Your task to perform on an android device: turn on data saver in the chrome app Image 0: 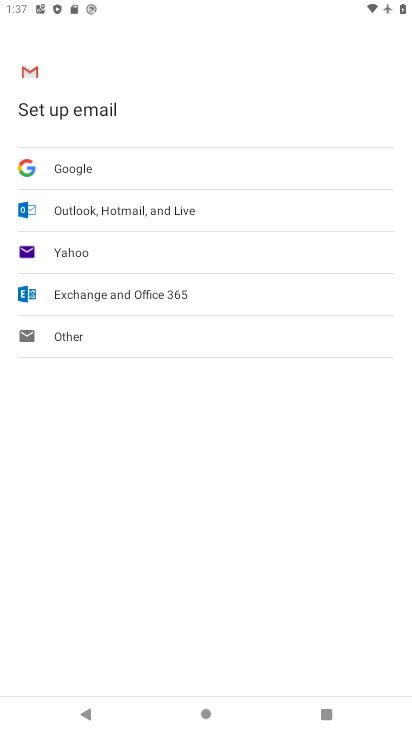
Step 0: press home button
Your task to perform on an android device: turn on data saver in the chrome app Image 1: 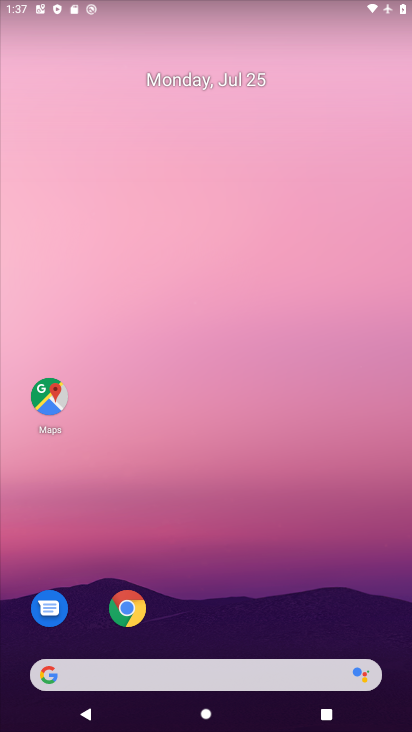
Step 1: drag from (305, 648) to (316, 185)
Your task to perform on an android device: turn on data saver in the chrome app Image 2: 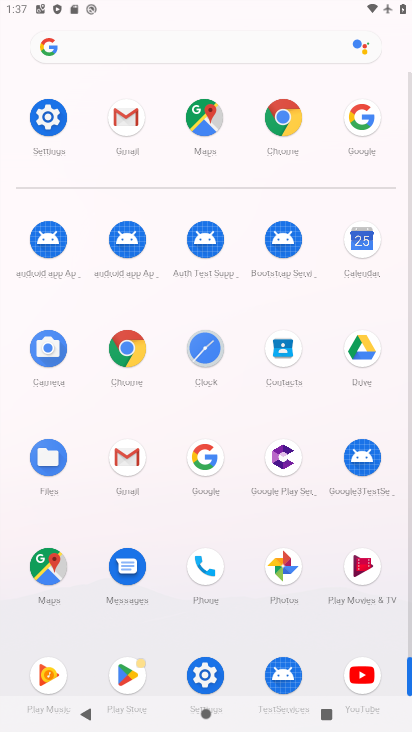
Step 2: click (118, 362)
Your task to perform on an android device: turn on data saver in the chrome app Image 3: 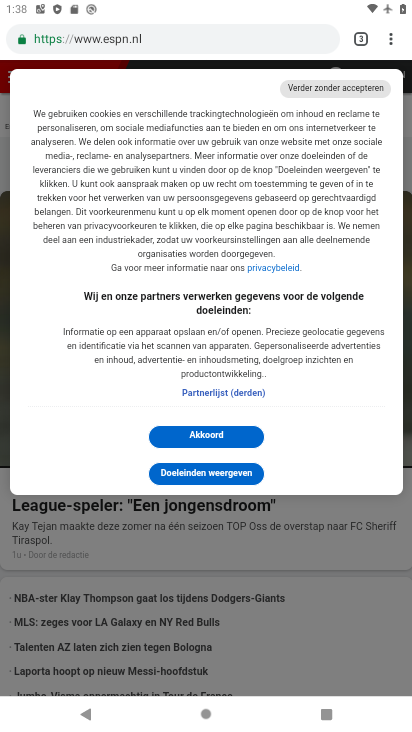
Step 3: click (396, 41)
Your task to perform on an android device: turn on data saver in the chrome app Image 4: 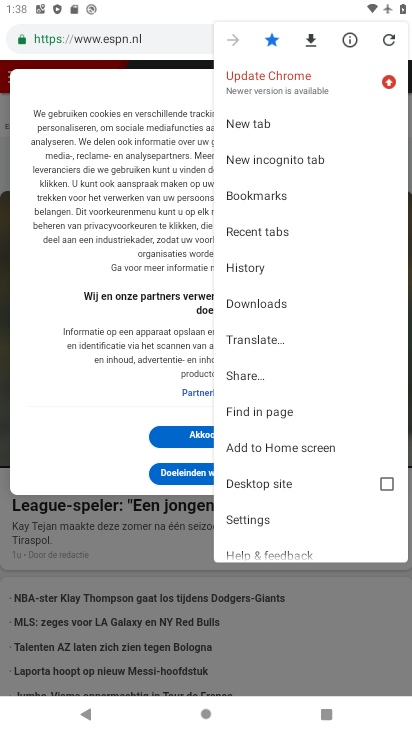
Step 4: click (251, 523)
Your task to perform on an android device: turn on data saver in the chrome app Image 5: 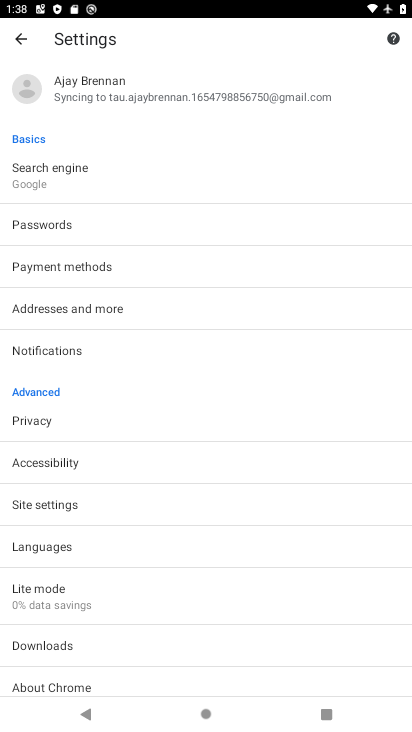
Step 5: click (85, 596)
Your task to perform on an android device: turn on data saver in the chrome app Image 6: 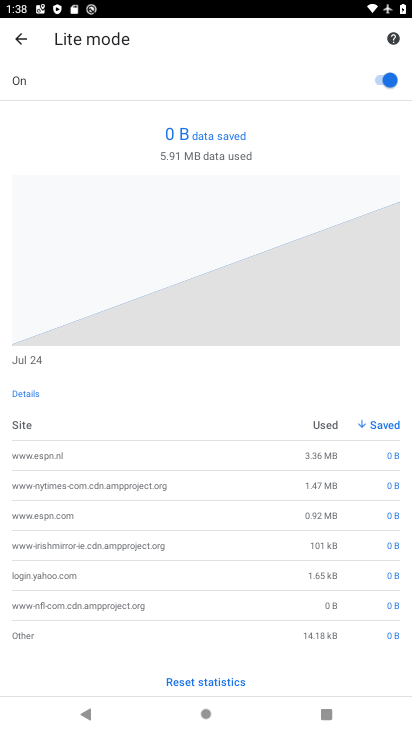
Step 6: task complete